Your task to perform on an android device: Go to location settings Image 0: 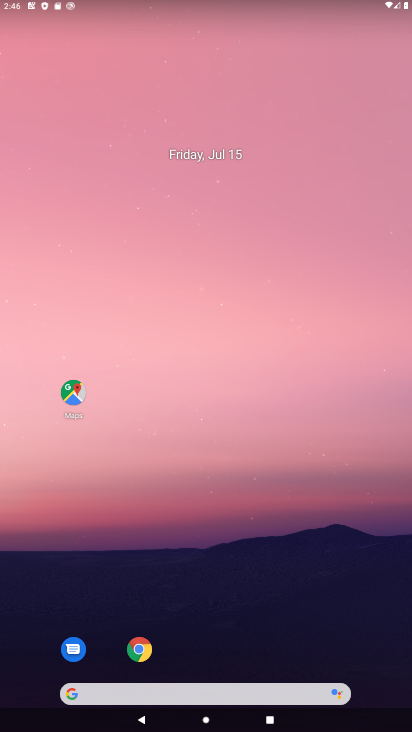
Step 0: drag from (215, 165) to (234, 55)
Your task to perform on an android device: Go to location settings Image 1: 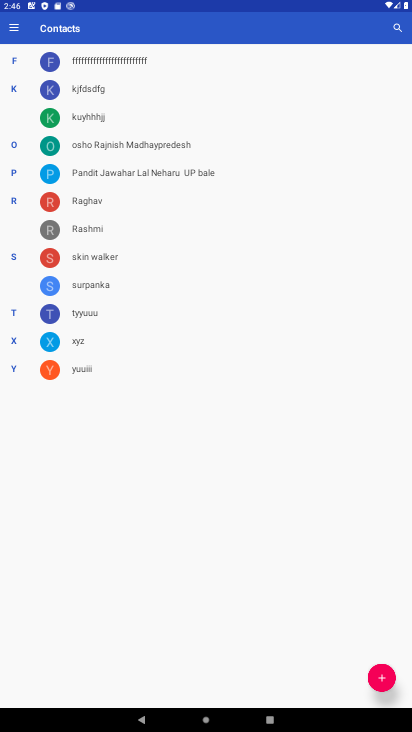
Step 1: press back button
Your task to perform on an android device: Go to location settings Image 2: 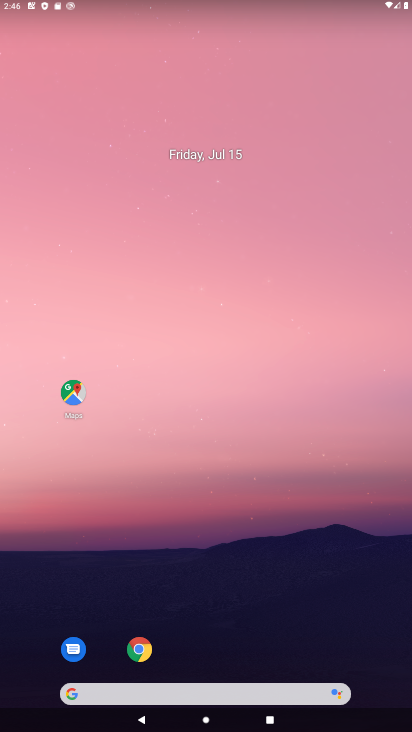
Step 2: drag from (303, 680) to (222, 106)
Your task to perform on an android device: Go to location settings Image 3: 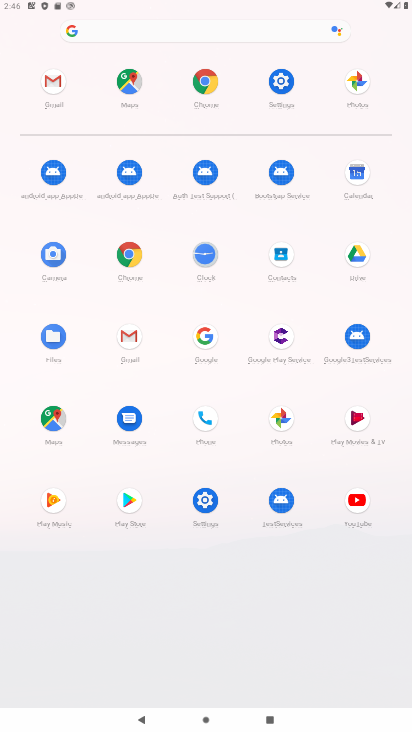
Step 3: click (191, 508)
Your task to perform on an android device: Go to location settings Image 4: 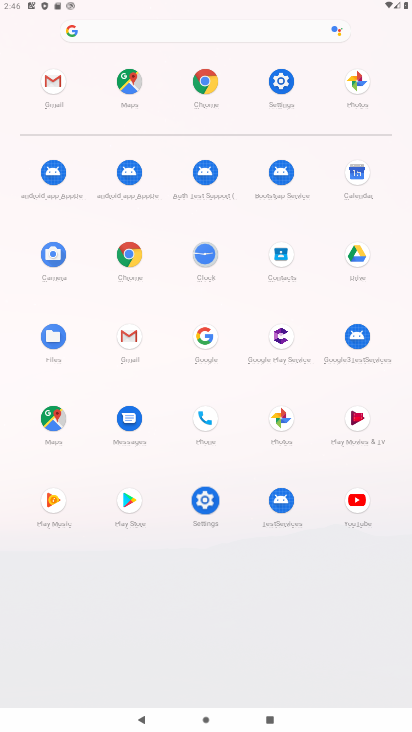
Step 4: click (200, 512)
Your task to perform on an android device: Go to location settings Image 5: 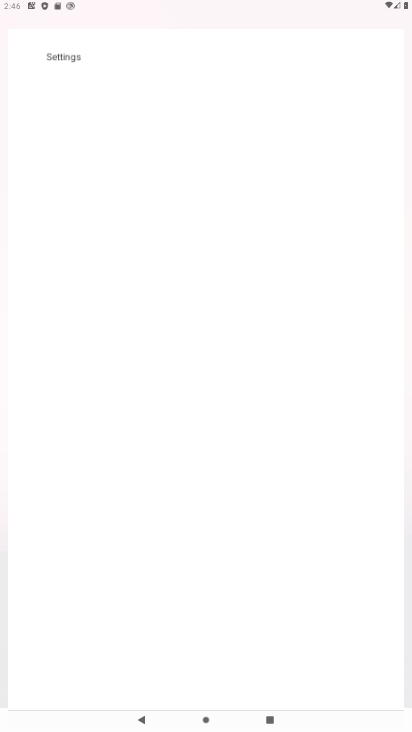
Step 5: click (198, 513)
Your task to perform on an android device: Go to location settings Image 6: 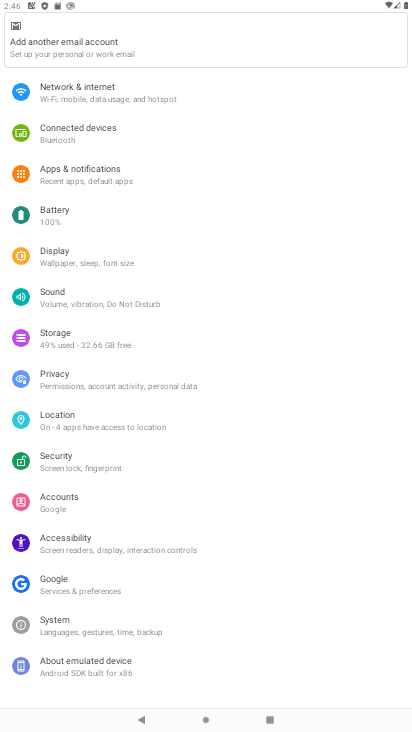
Step 6: click (100, 415)
Your task to perform on an android device: Go to location settings Image 7: 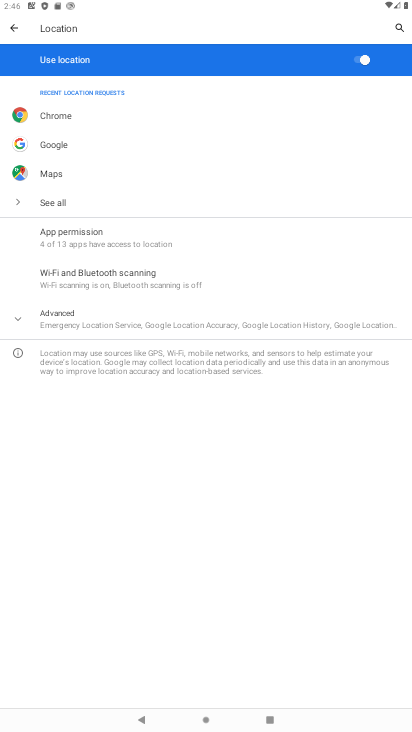
Step 7: task complete